Your task to perform on an android device: turn off improve location accuracy Image 0: 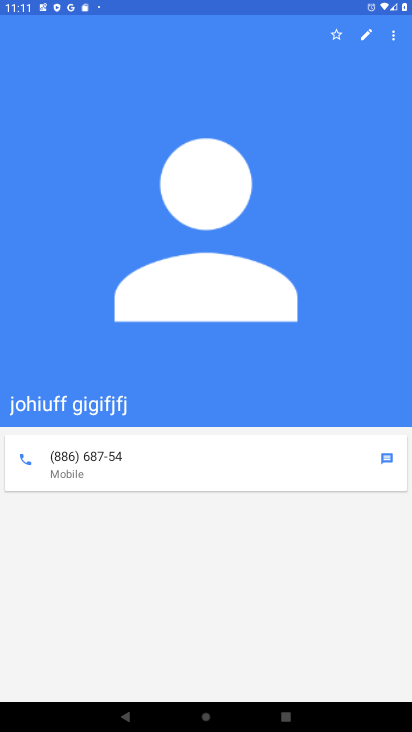
Step 0: press home button
Your task to perform on an android device: turn off improve location accuracy Image 1: 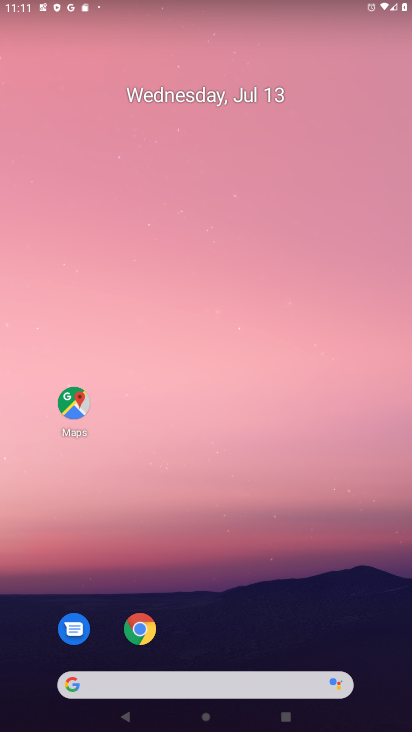
Step 1: press home button
Your task to perform on an android device: turn off improve location accuracy Image 2: 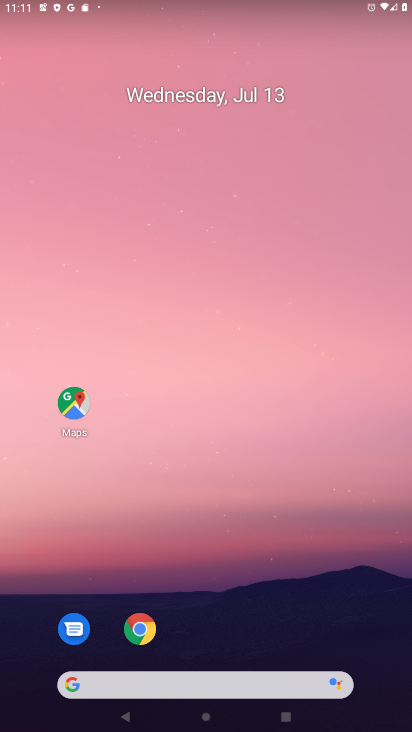
Step 2: drag from (279, 646) to (283, 349)
Your task to perform on an android device: turn off improve location accuracy Image 3: 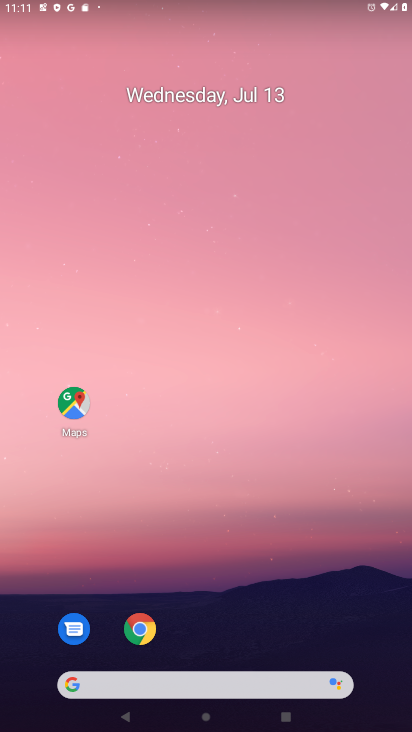
Step 3: drag from (275, 615) to (308, 290)
Your task to perform on an android device: turn off improve location accuracy Image 4: 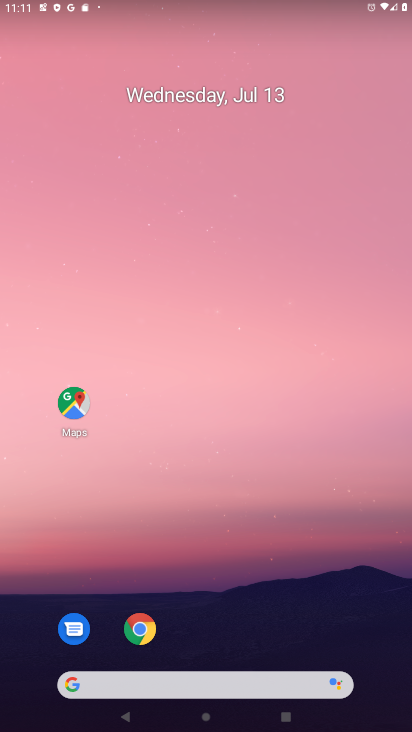
Step 4: drag from (237, 622) to (242, 202)
Your task to perform on an android device: turn off improve location accuracy Image 5: 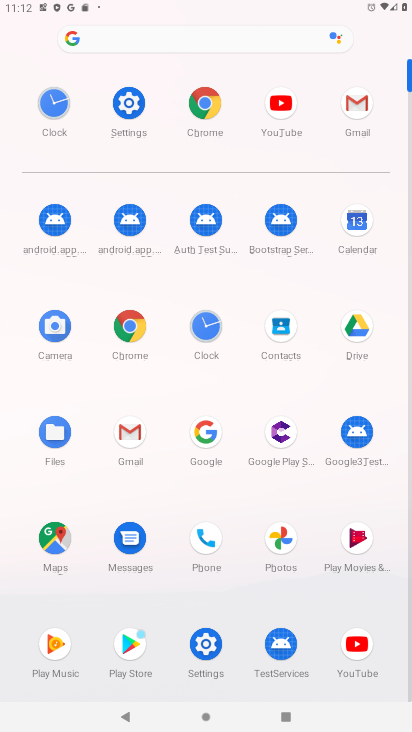
Step 5: click (143, 107)
Your task to perform on an android device: turn off improve location accuracy Image 6: 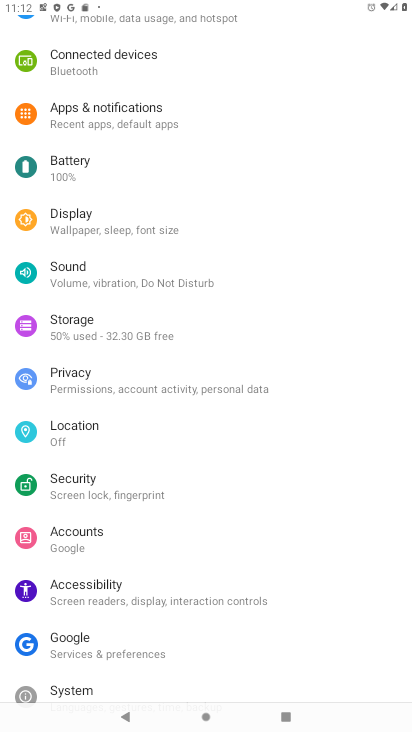
Step 6: click (140, 430)
Your task to perform on an android device: turn off improve location accuracy Image 7: 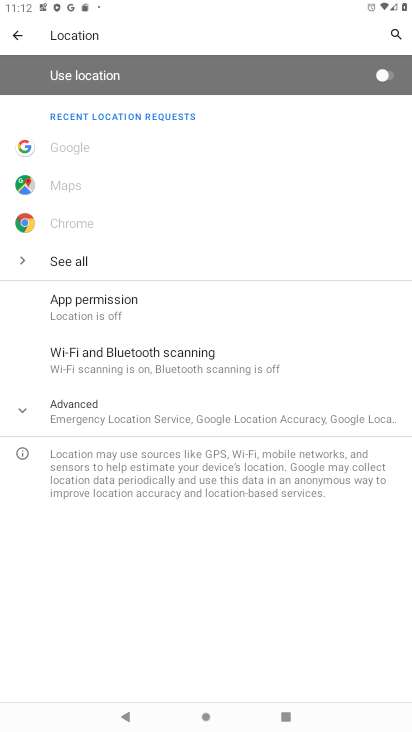
Step 7: click (114, 411)
Your task to perform on an android device: turn off improve location accuracy Image 8: 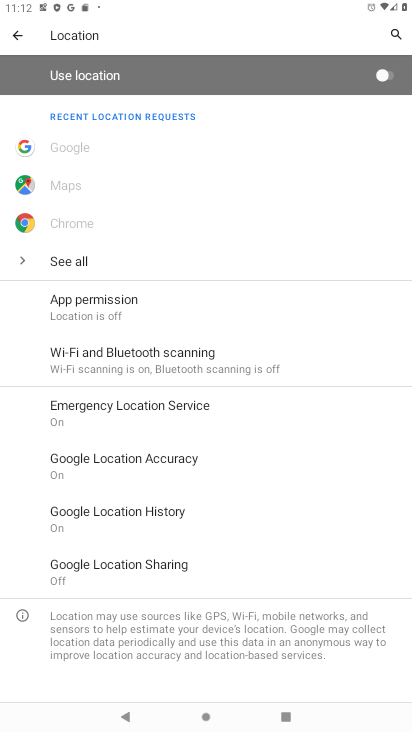
Step 8: click (206, 469)
Your task to perform on an android device: turn off improve location accuracy Image 9: 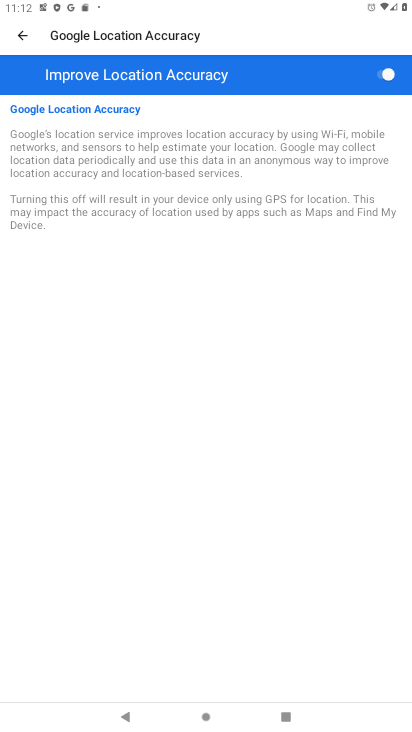
Step 9: click (378, 69)
Your task to perform on an android device: turn off improve location accuracy Image 10: 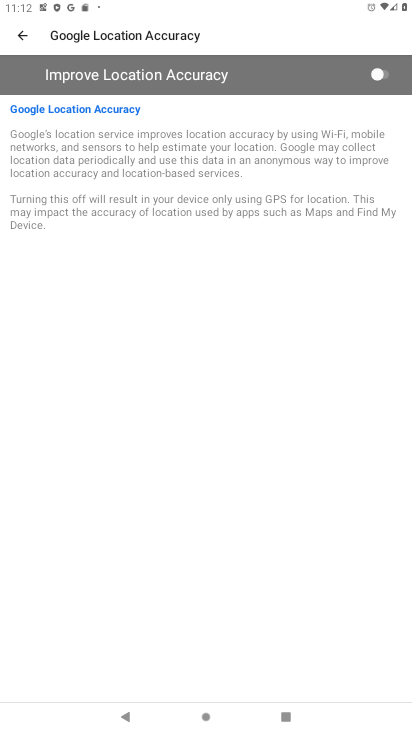
Step 10: task complete